Your task to perform on an android device: delete a single message in the gmail app Image 0: 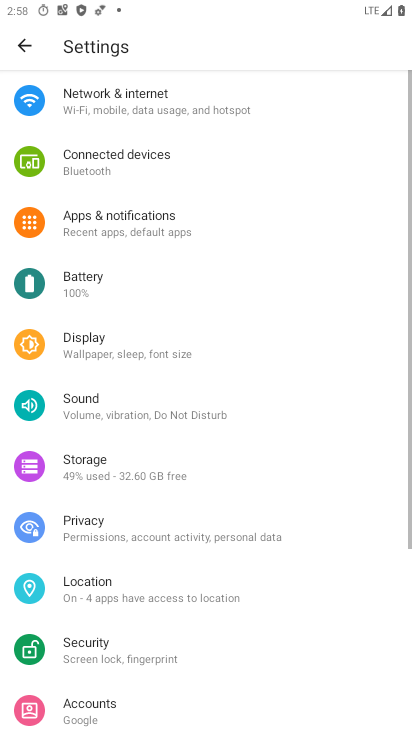
Step 0: press home button
Your task to perform on an android device: delete a single message in the gmail app Image 1: 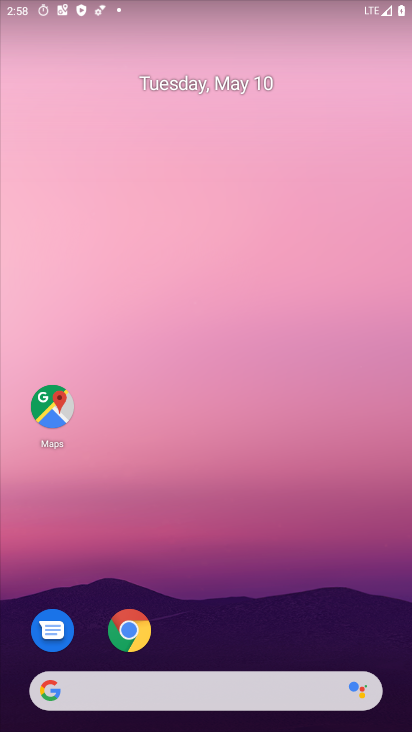
Step 1: drag from (210, 634) to (186, 357)
Your task to perform on an android device: delete a single message in the gmail app Image 2: 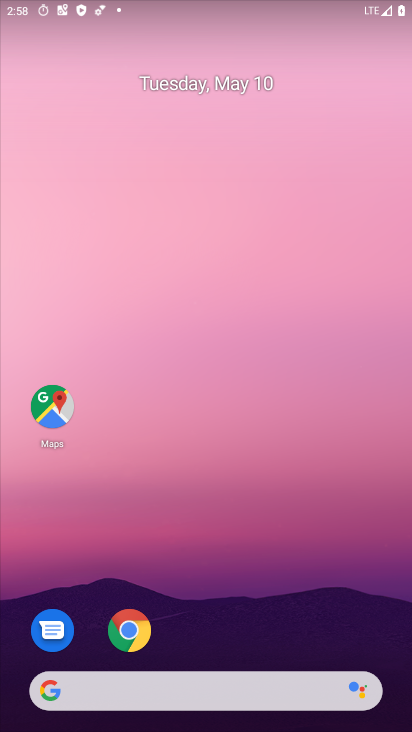
Step 2: drag from (214, 663) to (355, 93)
Your task to perform on an android device: delete a single message in the gmail app Image 3: 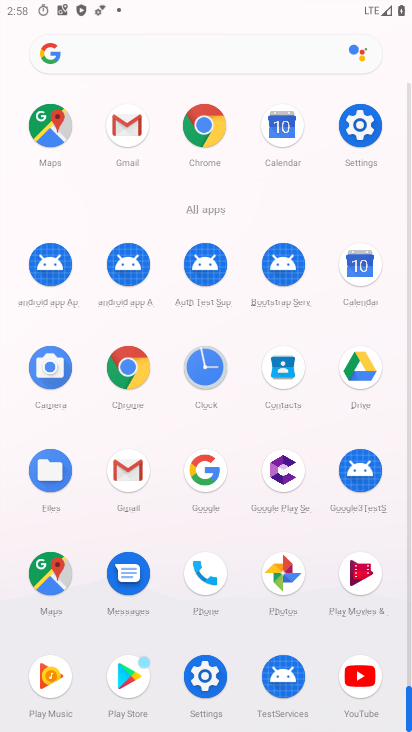
Step 3: click (141, 143)
Your task to perform on an android device: delete a single message in the gmail app Image 4: 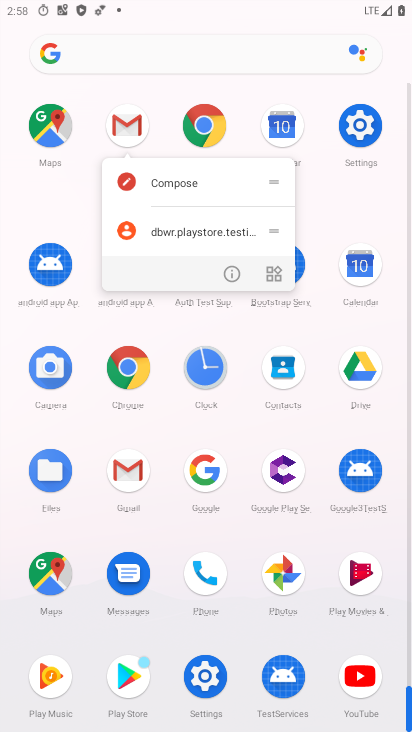
Step 4: click (141, 143)
Your task to perform on an android device: delete a single message in the gmail app Image 5: 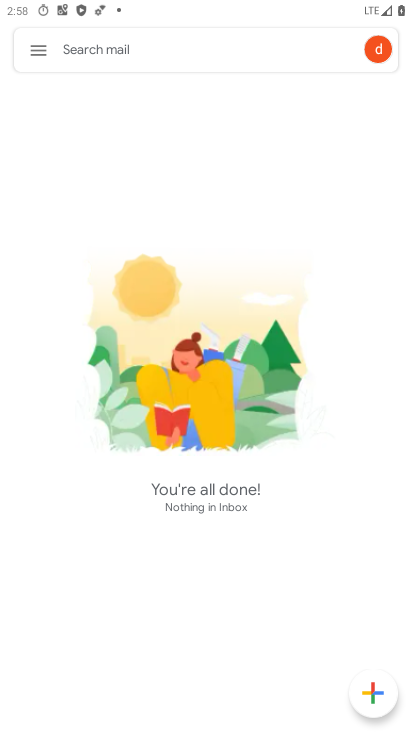
Step 5: task complete